Your task to perform on an android device: Clear the shopping cart on amazon.com. Image 0: 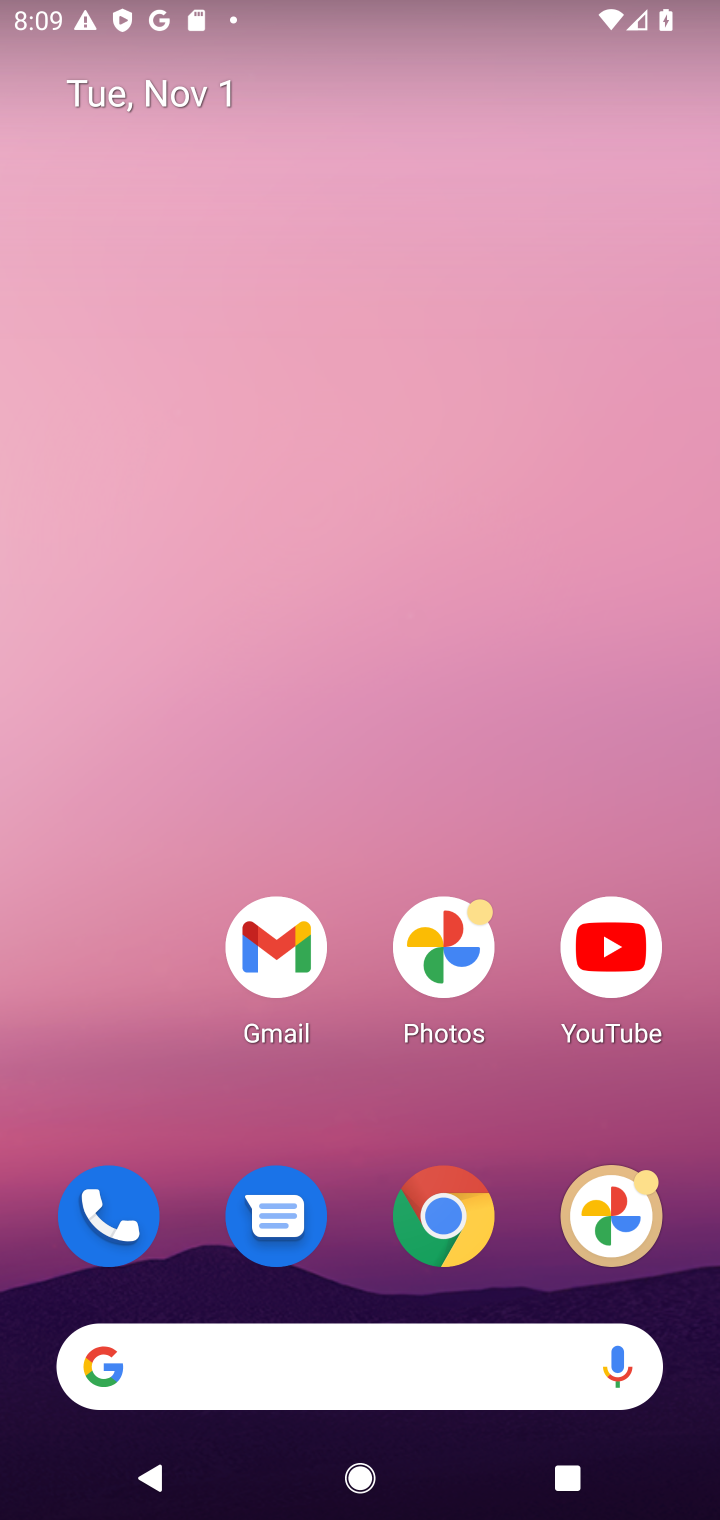
Step 0: click (446, 1229)
Your task to perform on an android device: Clear the shopping cart on amazon.com. Image 1: 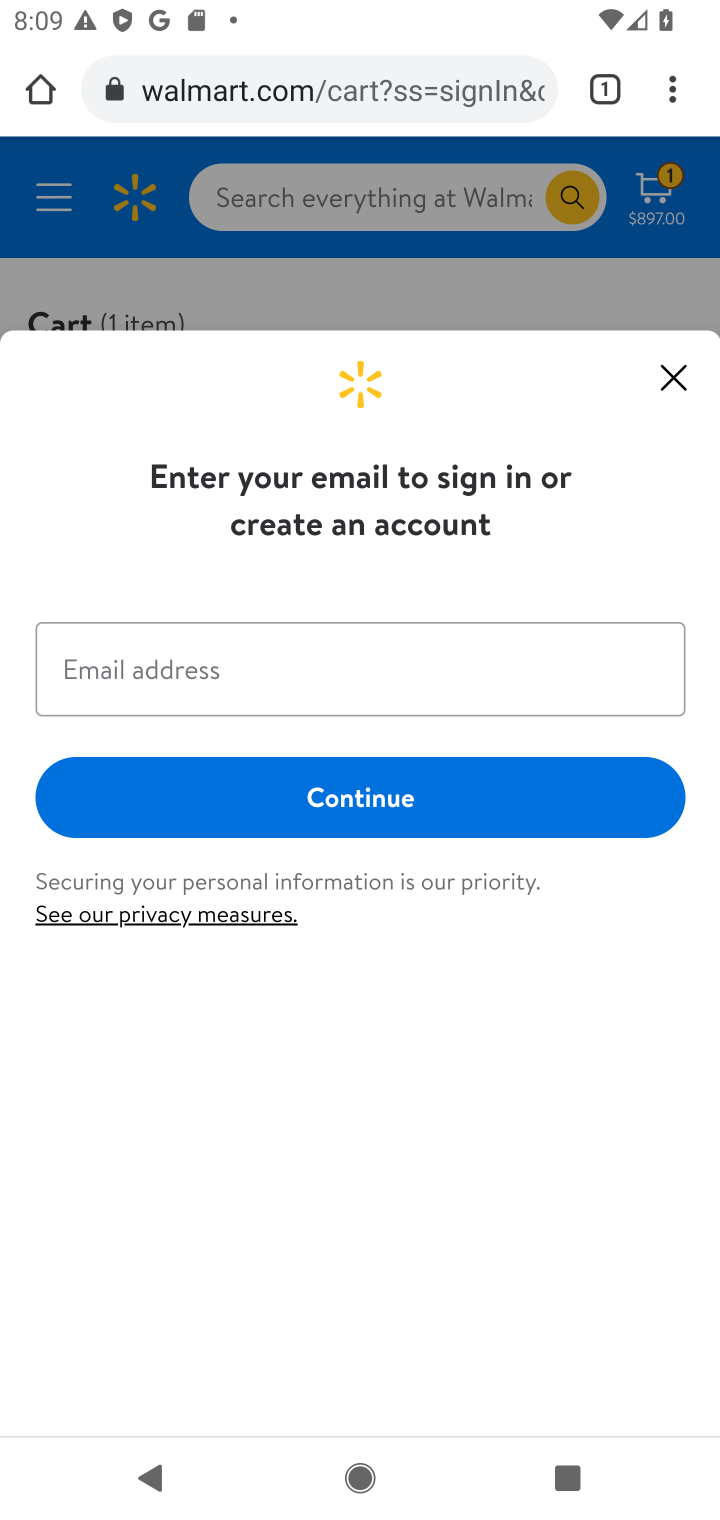
Step 1: click (351, 89)
Your task to perform on an android device: Clear the shopping cart on amazon.com. Image 2: 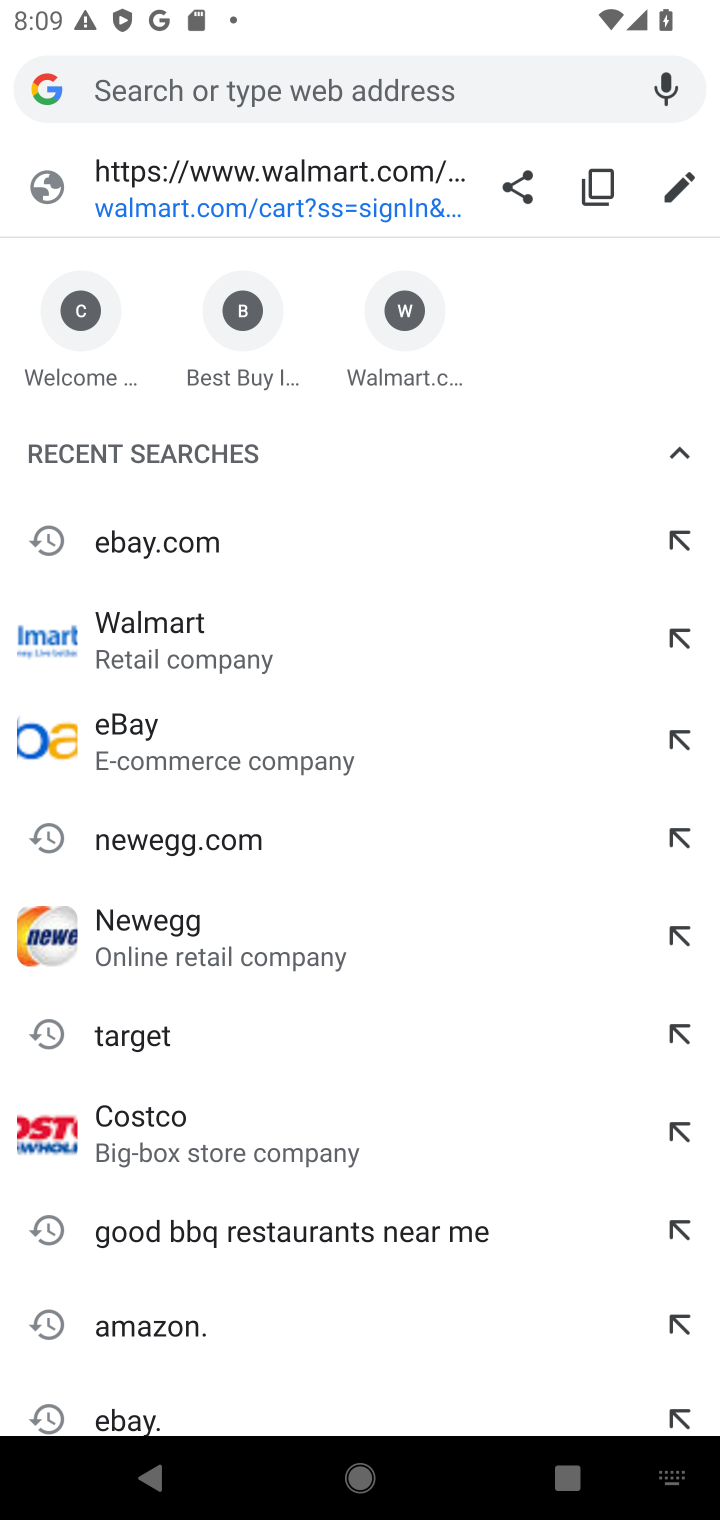
Step 2: click (481, 101)
Your task to perform on an android device: Clear the shopping cart on amazon.com. Image 3: 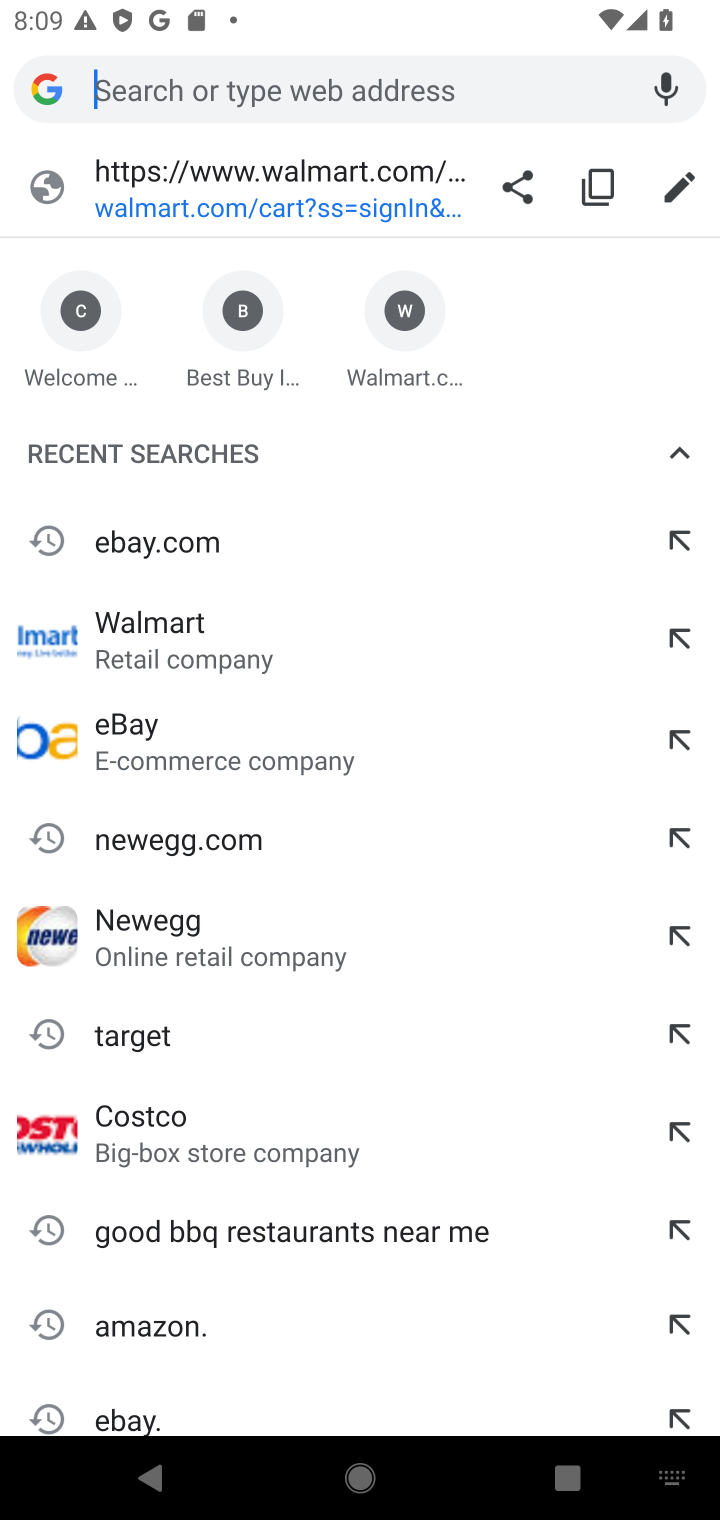
Step 3: type "amazon.com"
Your task to perform on an android device: Clear the shopping cart on amazon.com. Image 4: 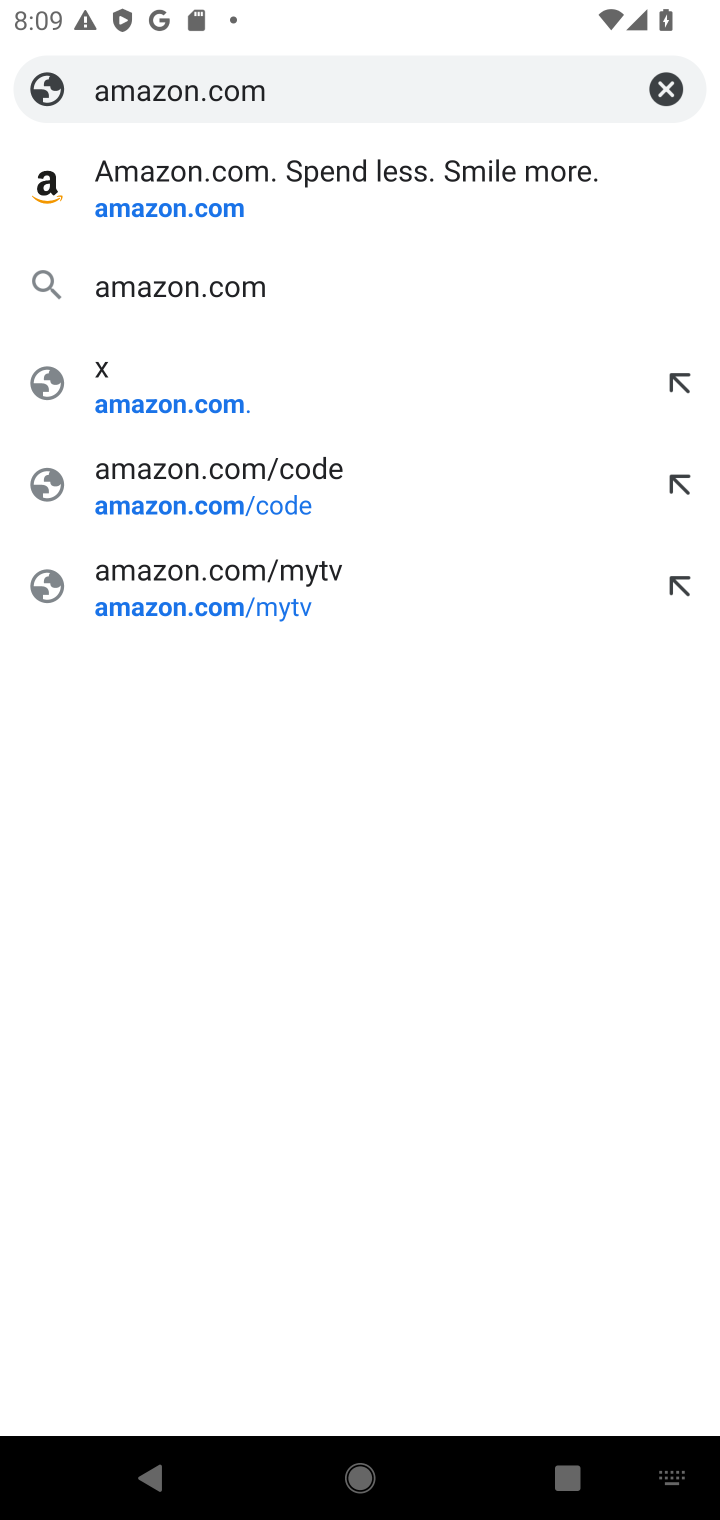
Step 4: click (305, 192)
Your task to perform on an android device: Clear the shopping cart on amazon.com. Image 5: 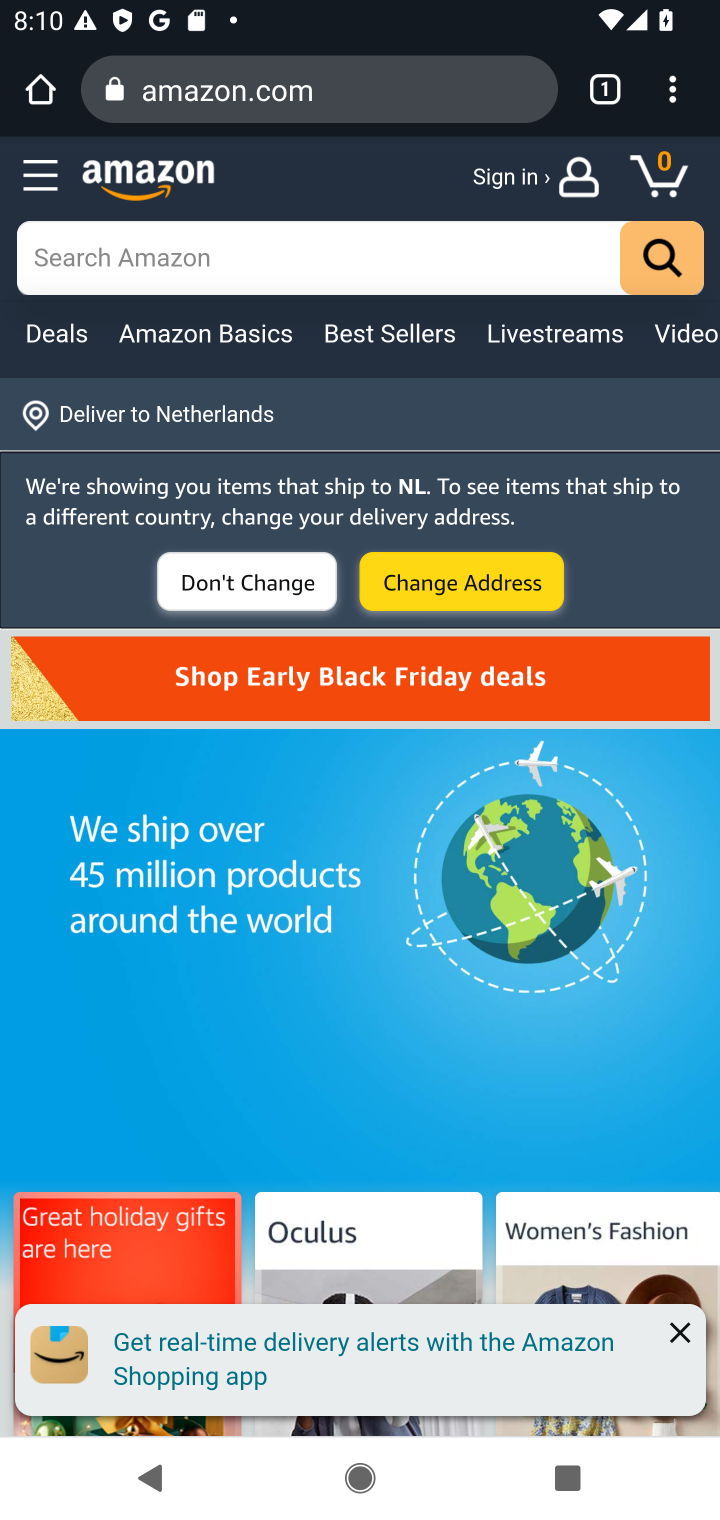
Step 5: click (663, 175)
Your task to perform on an android device: Clear the shopping cart on amazon.com. Image 6: 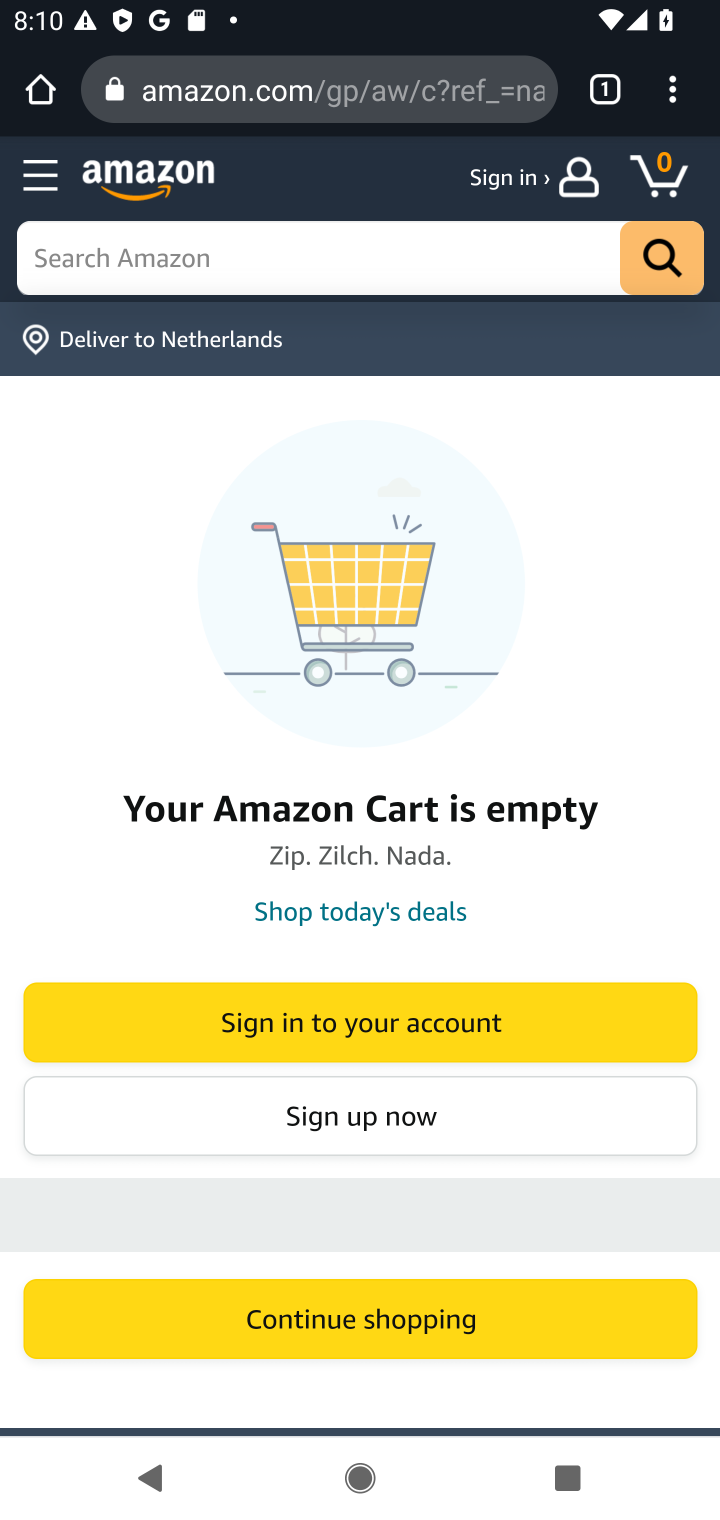
Step 6: task complete